Your task to perform on an android device: add a contact in the contacts app Image 0: 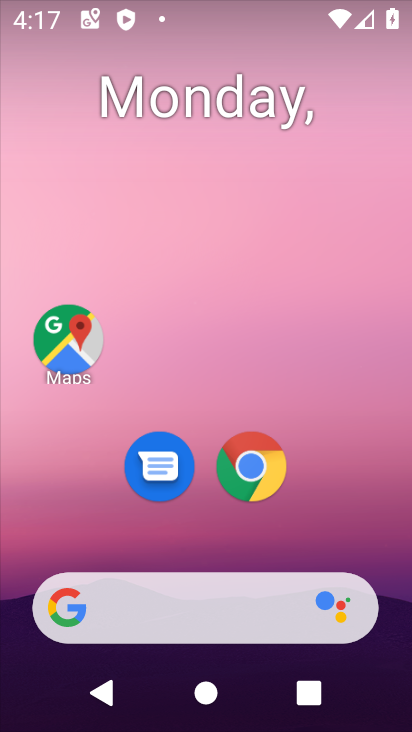
Step 0: drag from (349, 511) to (344, 56)
Your task to perform on an android device: add a contact in the contacts app Image 1: 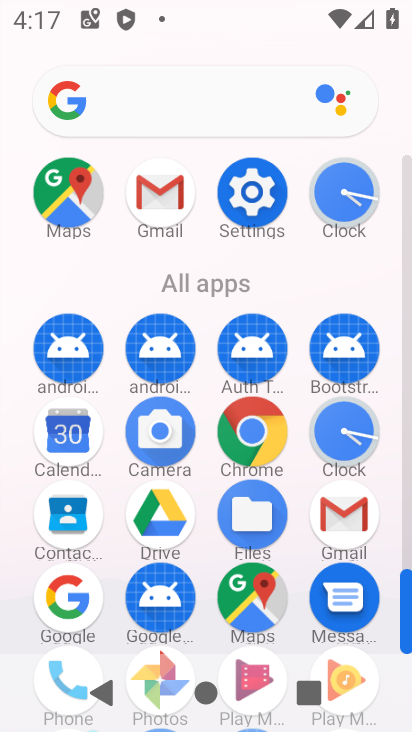
Step 1: click (81, 521)
Your task to perform on an android device: add a contact in the contacts app Image 2: 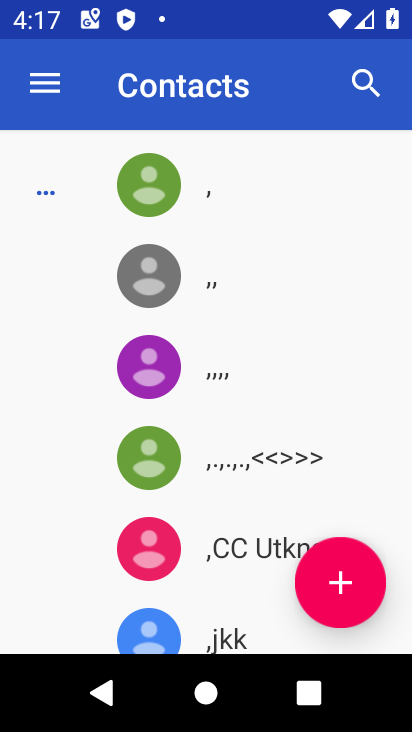
Step 2: click (325, 582)
Your task to perform on an android device: add a contact in the contacts app Image 3: 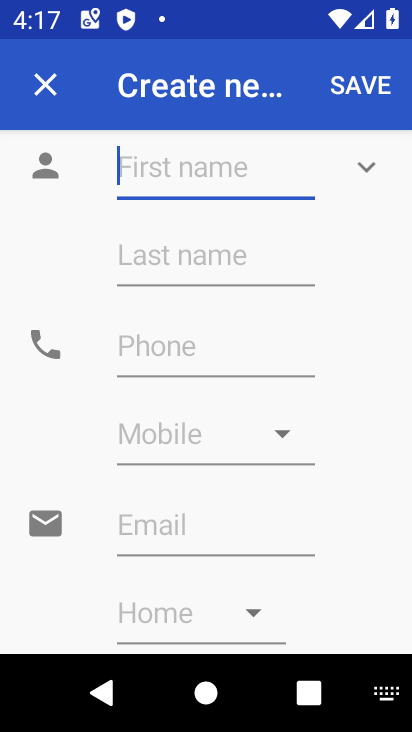
Step 3: type "earth"
Your task to perform on an android device: add a contact in the contacts app Image 4: 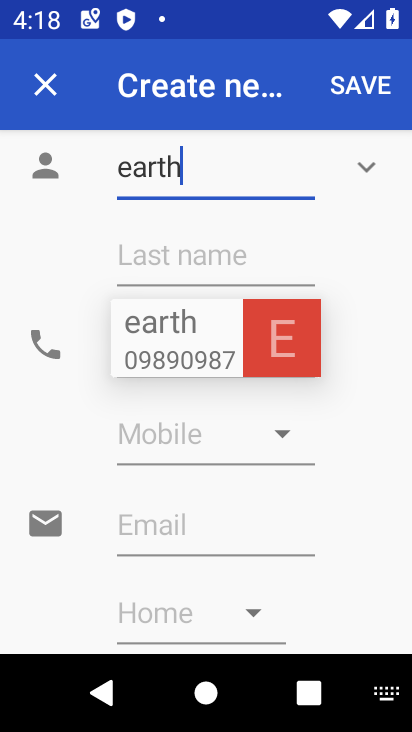
Step 4: type "moom"
Your task to perform on an android device: add a contact in the contacts app Image 5: 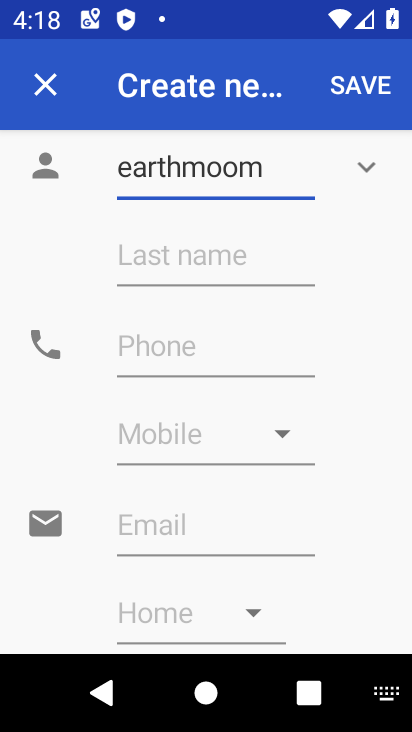
Step 5: click (354, 93)
Your task to perform on an android device: add a contact in the contacts app Image 6: 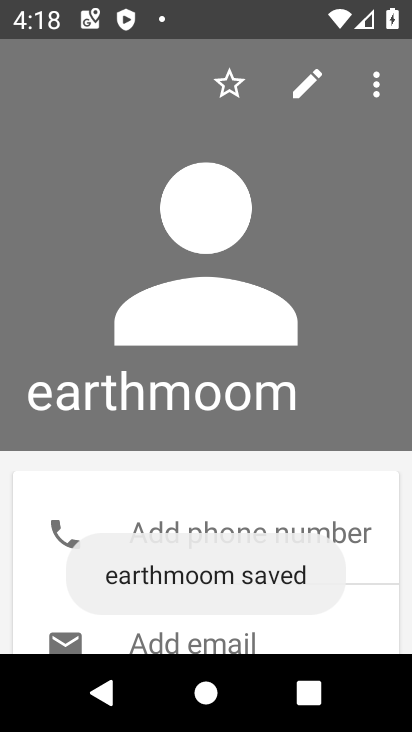
Step 6: task complete